Your task to perform on an android device: Check the weather Image 0: 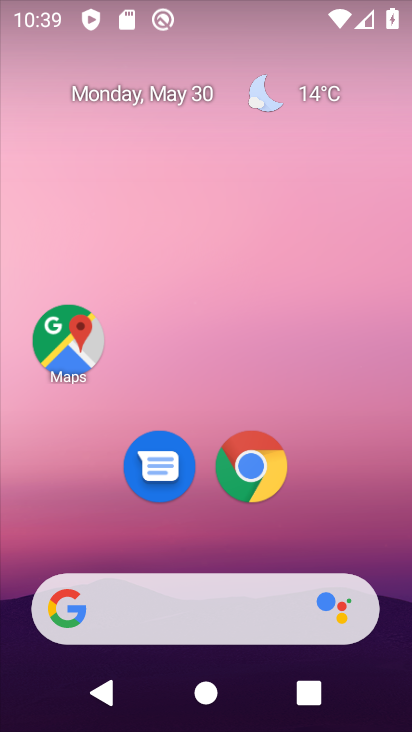
Step 0: click (227, 620)
Your task to perform on an android device: Check the weather Image 1: 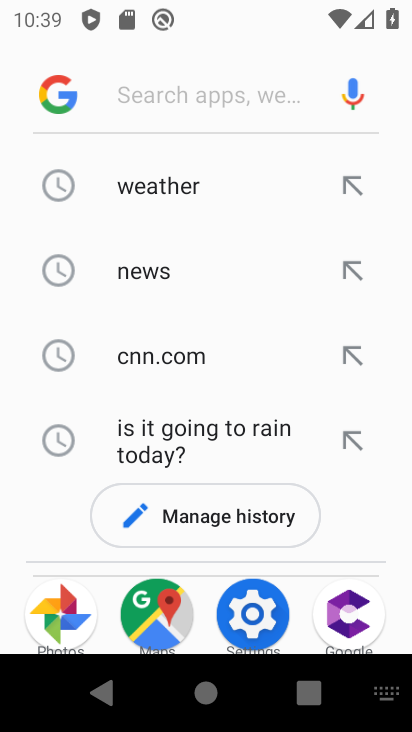
Step 1: click (168, 189)
Your task to perform on an android device: Check the weather Image 2: 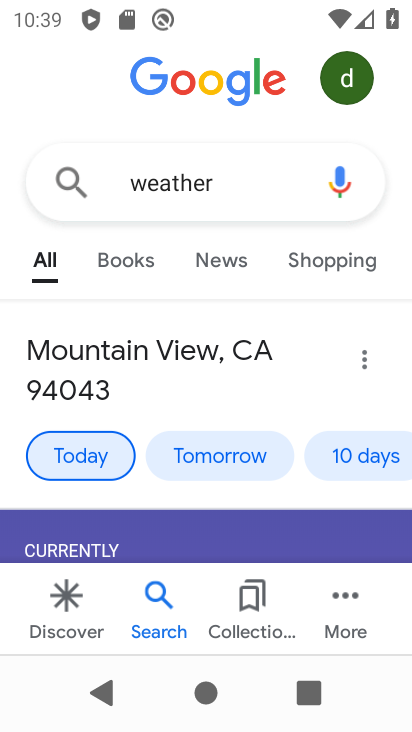
Step 2: click (175, 382)
Your task to perform on an android device: Check the weather Image 3: 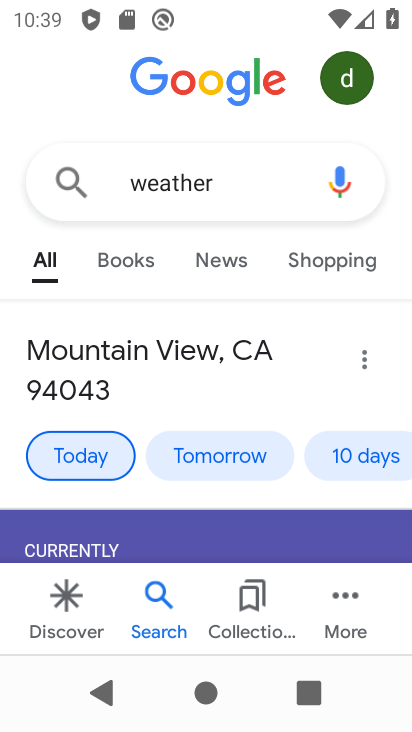
Step 3: task complete